Your task to perform on an android device: Toggle the flashlight Image 0: 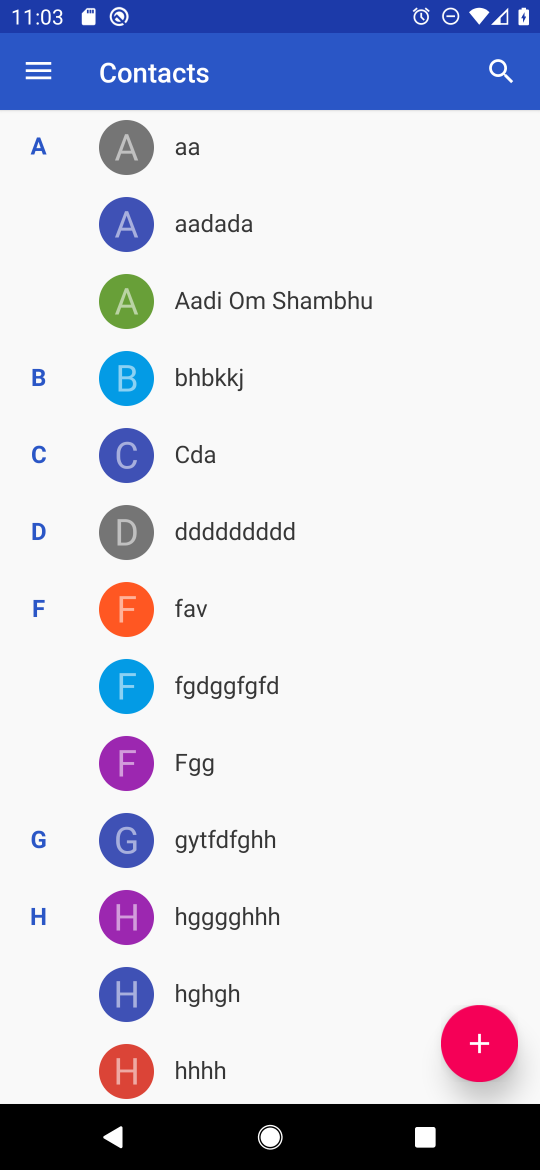
Step 0: press home button
Your task to perform on an android device: Toggle the flashlight Image 1: 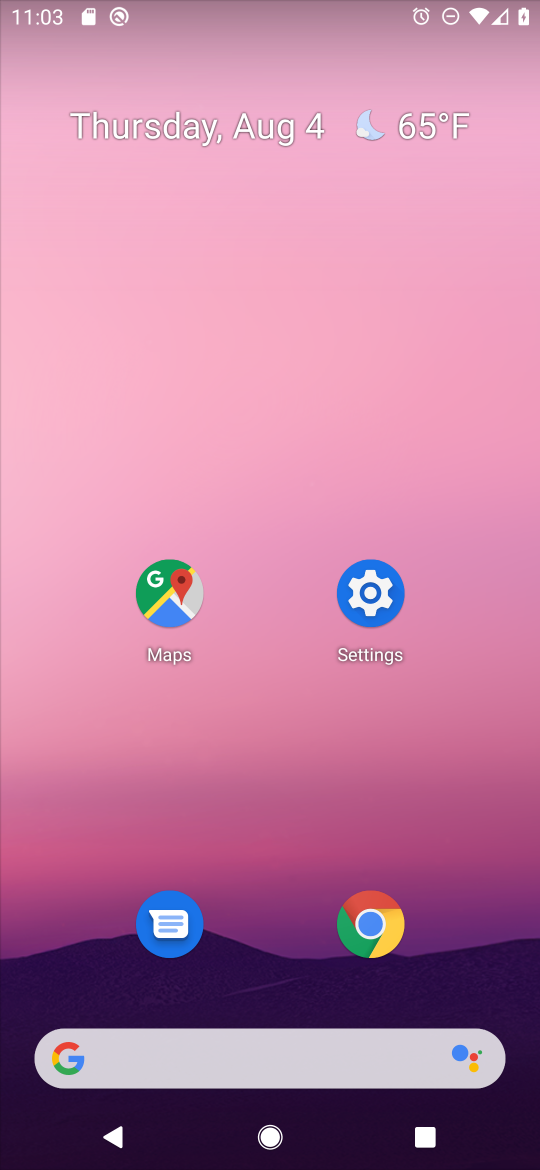
Step 1: task complete